Your task to perform on an android device: toggle javascript in the chrome app Image 0: 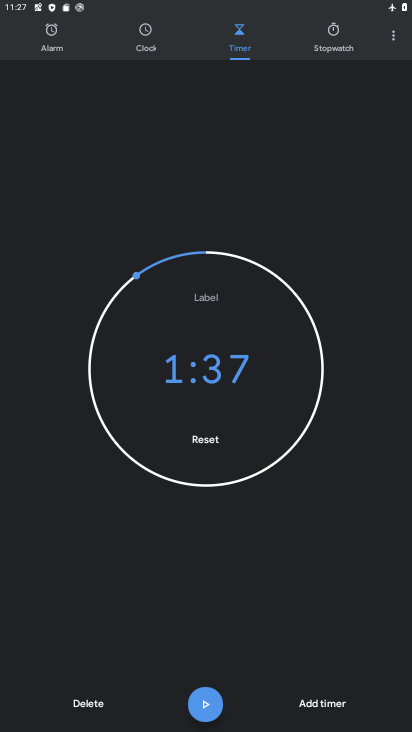
Step 0: press home button
Your task to perform on an android device: toggle javascript in the chrome app Image 1: 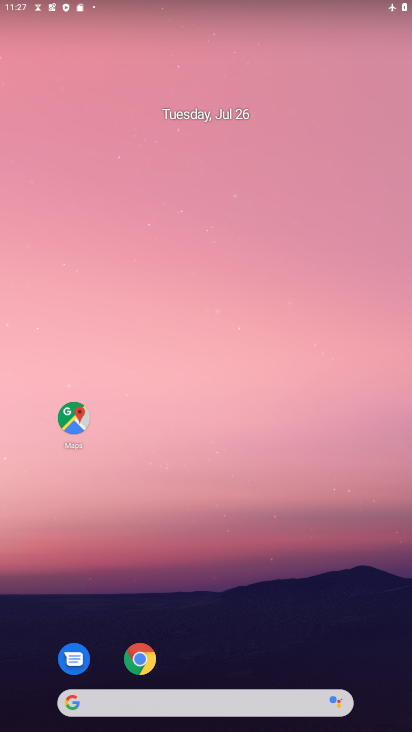
Step 1: click (140, 662)
Your task to perform on an android device: toggle javascript in the chrome app Image 2: 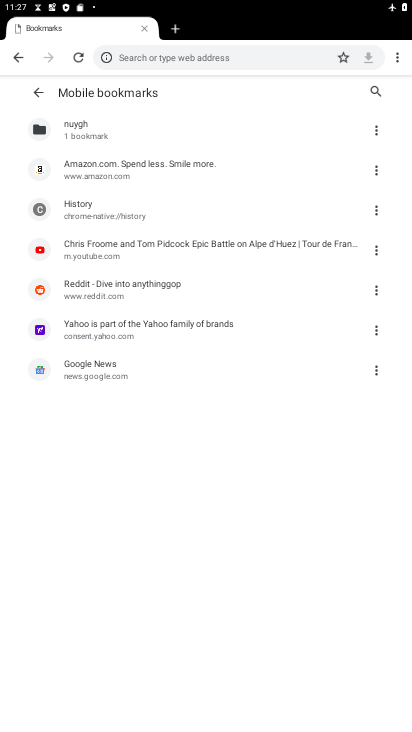
Step 2: click (399, 55)
Your task to perform on an android device: toggle javascript in the chrome app Image 3: 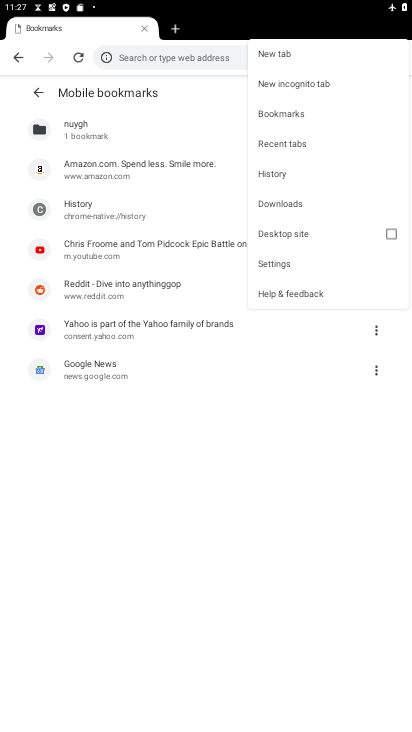
Step 3: click (278, 263)
Your task to perform on an android device: toggle javascript in the chrome app Image 4: 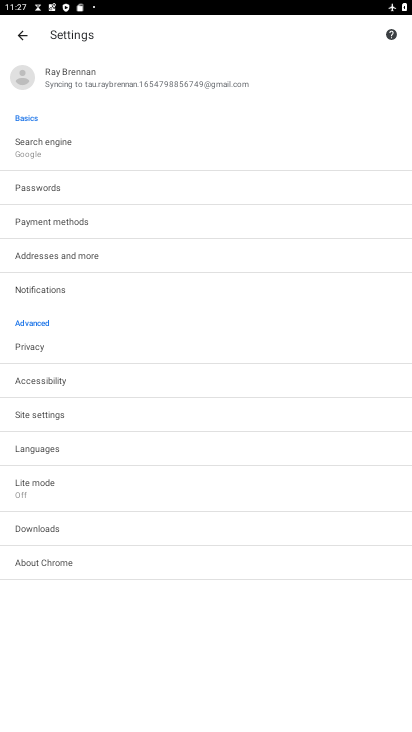
Step 4: click (52, 416)
Your task to perform on an android device: toggle javascript in the chrome app Image 5: 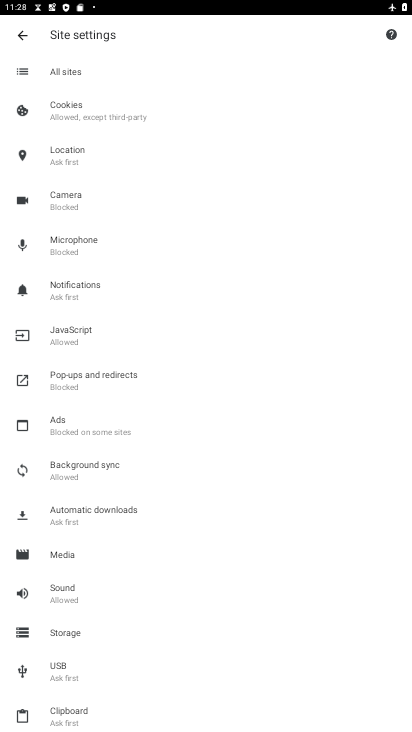
Step 5: click (74, 342)
Your task to perform on an android device: toggle javascript in the chrome app Image 6: 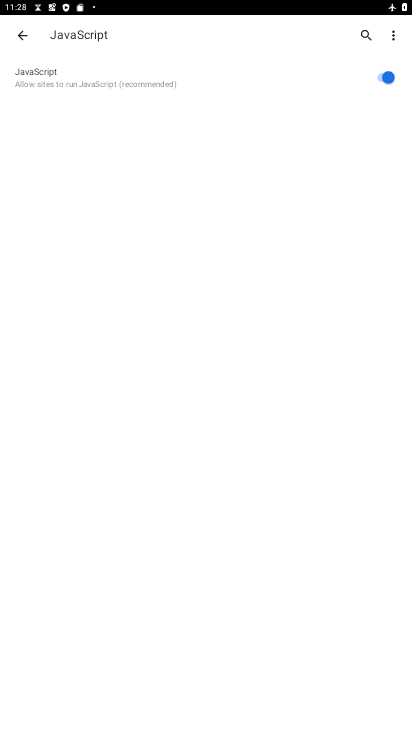
Step 6: click (385, 81)
Your task to perform on an android device: toggle javascript in the chrome app Image 7: 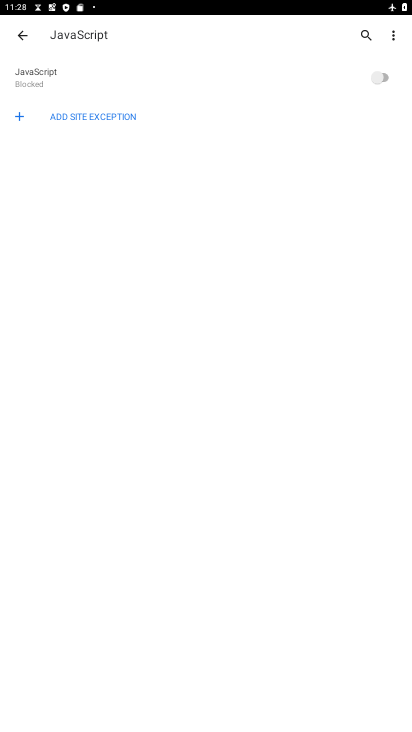
Step 7: task complete